Your task to perform on an android device: Open sound settings Image 0: 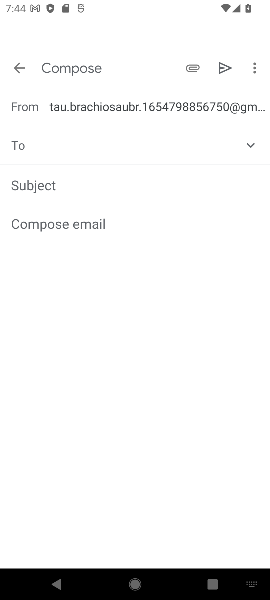
Step 0: press home button
Your task to perform on an android device: Open sound settings Image 1: 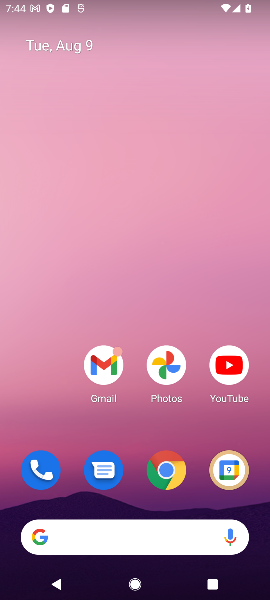
Step 1: drag from (110, 97) to (106, 0)
Your task to perform on an android device: Open sound settings Image 2: 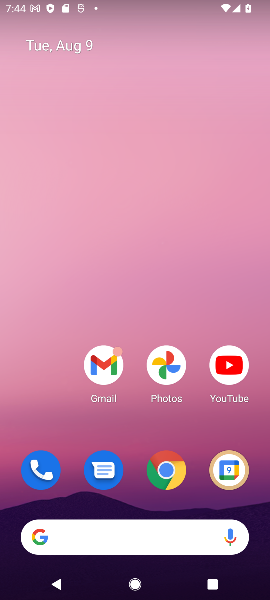
Step 2: drag from (135, 508) to (114, 1)
Your task to perform on an android device: Open sound settings Image 3: 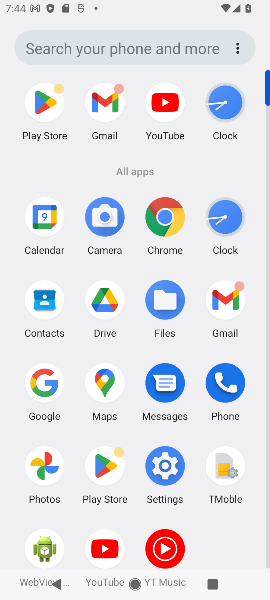
Step 3: click (157, 468)
Your task to perform on an android device: Open sound settings Image 4: 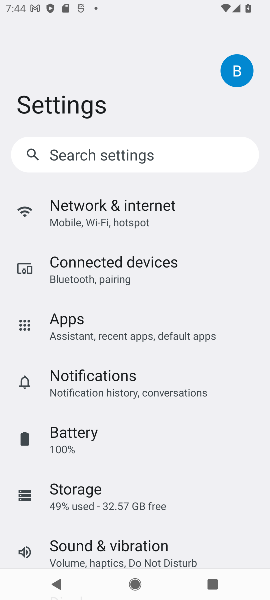
Step 4: drag from (134, 395) to (158, 267)
Your task to perform on an android device: Open sound settings Image 5: 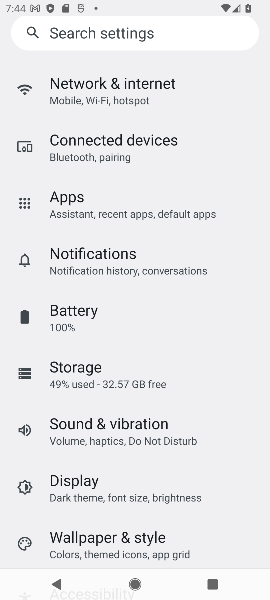
Step 5: click (86, 437)
Your task to perform on an android device: Open sound settings Image 6: 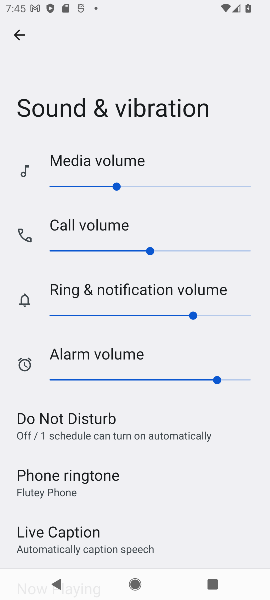
Step 6: click (78, 432)
Your task to perform on an android device: Open sound settings Image 7: 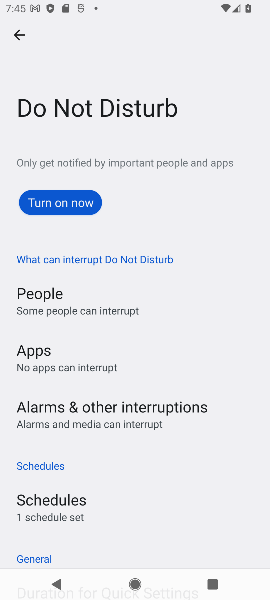
Step 7: task complete